Your task to perform on an android device: Check the news Image 0: 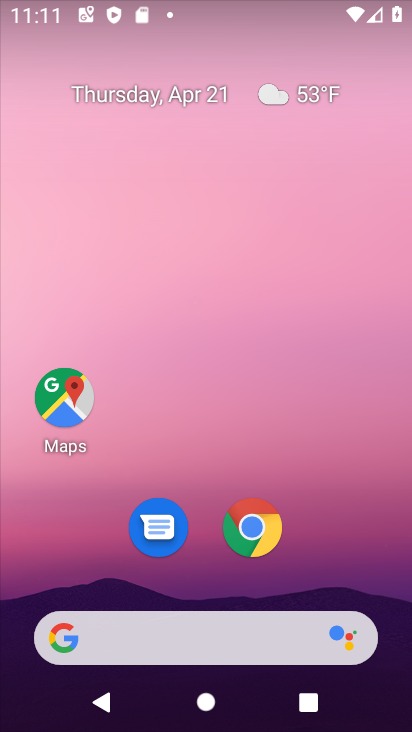
Step 0: drag from (31, 237) to (398, 315)
Your task to perform on an android device: Check the news Image 1: 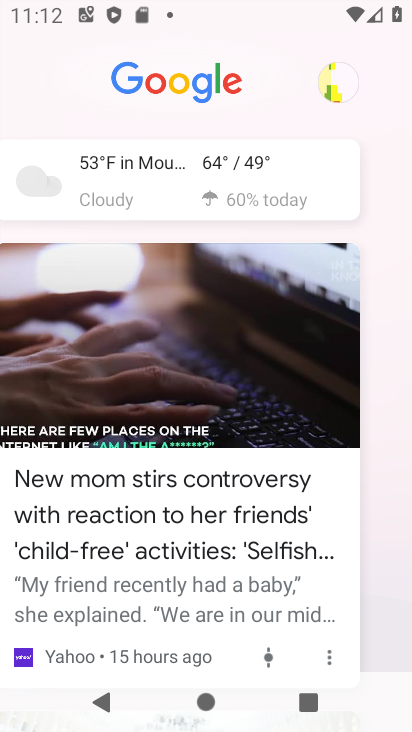
Step 1: task complete